Your task to perform on an android device: Show me the alarms in the clock app Image 0: 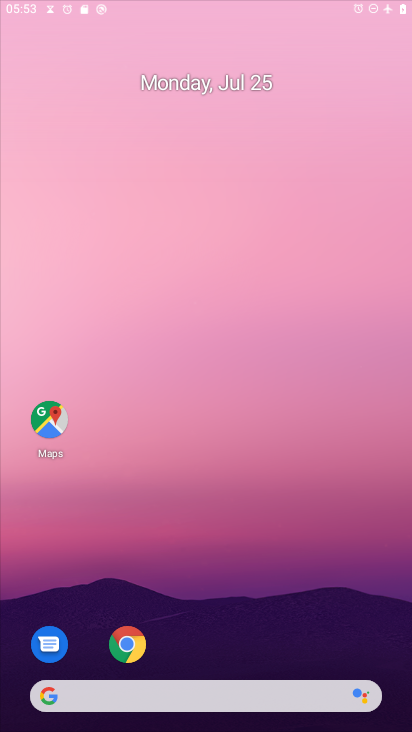
Step 0: press home button
Your task to perform on an android device: Show me the alarms in the clock app Image 1: 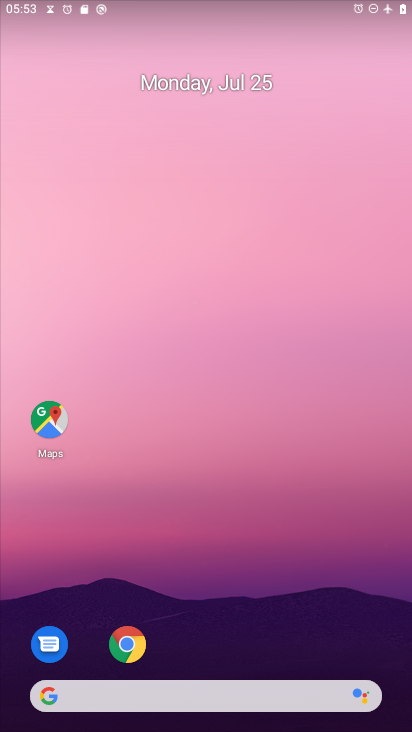
Step 1: drag from (226, 632) to (231, 126)
Your task to perform on an android device: Show me the alarms in the clock app Image 2: 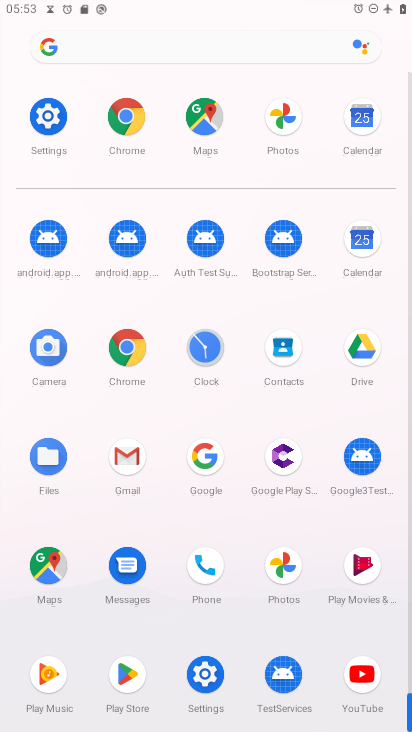
Step 2: click (200, 353)
Your task to perform on an android device: Show me the alarms in the clock app Image 3: 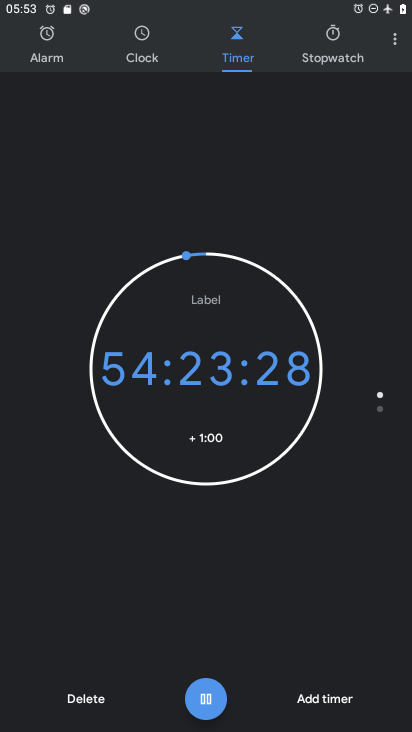
Step 3: click (40, 49)
Your task to perform on an android device: Show me the alarms in the clock app Image 4: 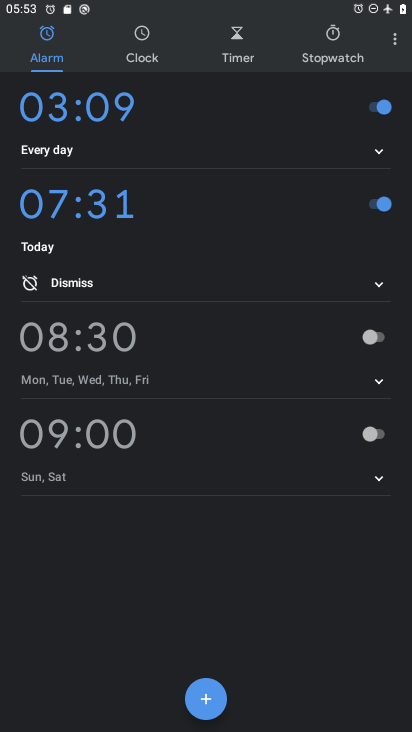
Step 4: task complete